Your task to perform on an android device: Go to eBay Image 0: 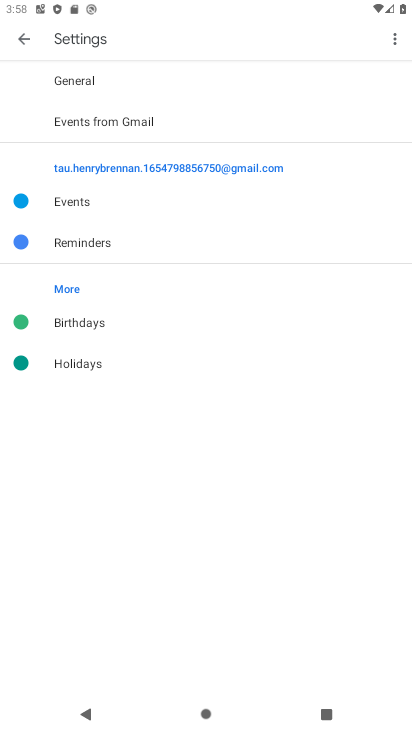
Step 0: click (229, 643)
Your task to perform on an android device: Go to eBay Image 1: 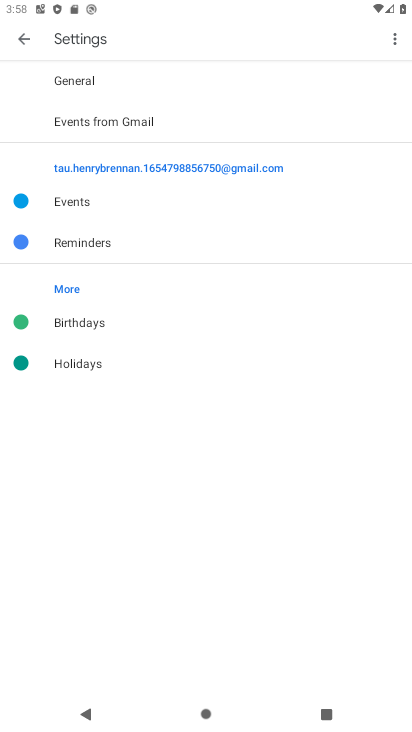
Step 1: press home button
Your task to perform on an android device: Go to eBay Image 2: 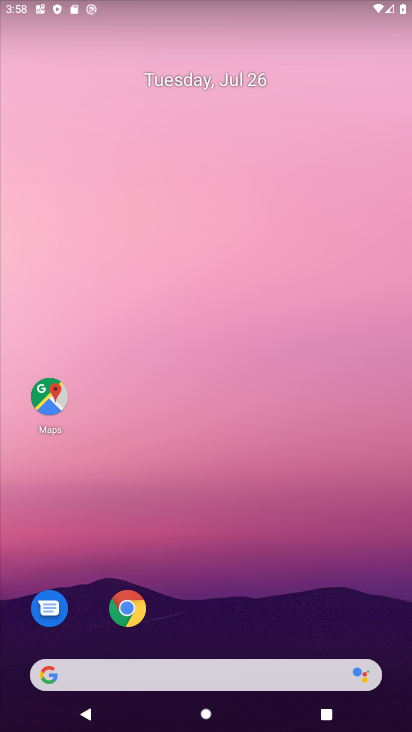
Step 2: drag from (233, 668) to (233, 4)
Your task to perform on an android device: Go to eBay Image 3: 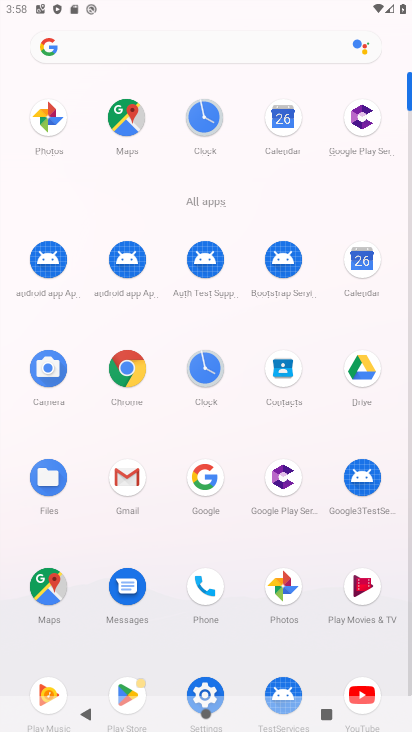
Step 3: click (111, 382)
Your task to perform on an android device: Go to eBay Image 4: 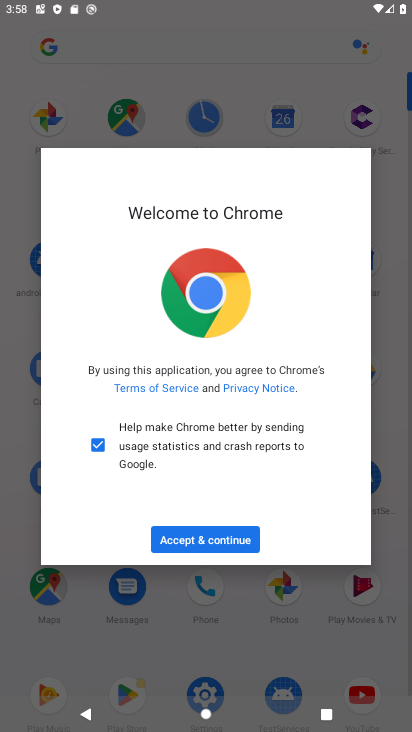
Step 4: click (207, 541)
Your task to perform on an android device: Go to eBay Image 5: 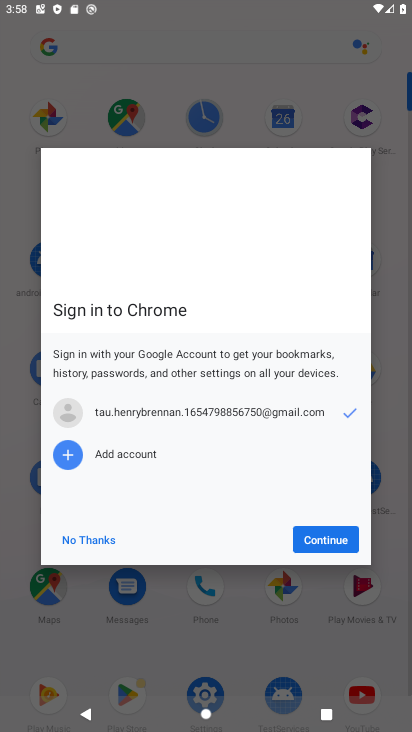
Step 5: click (295, 536)
Your task to perform on an android device: Go to eBay Image 6: 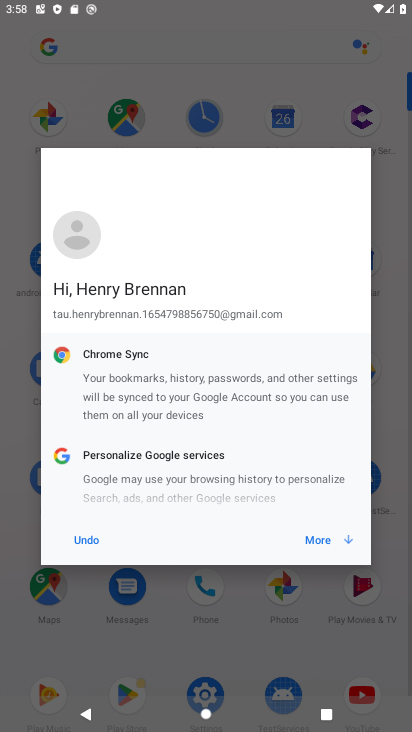
Step 6: click (329, 540)
Your task to perform on an android device: Go to eBay Image 7: 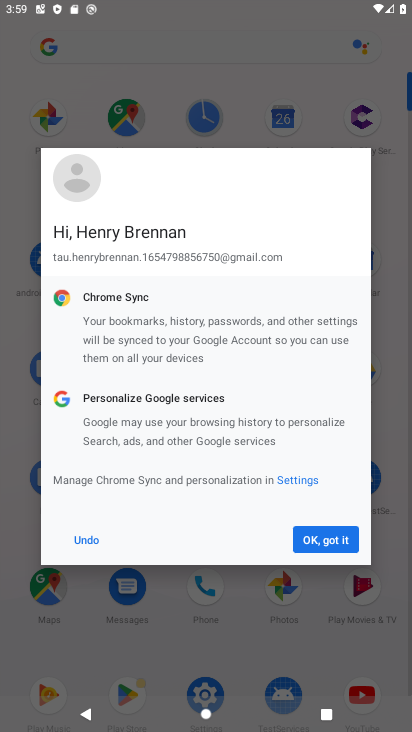
Step 7: click (329, 539)
Your task to perform on an android device: Go to eBay Image 8: 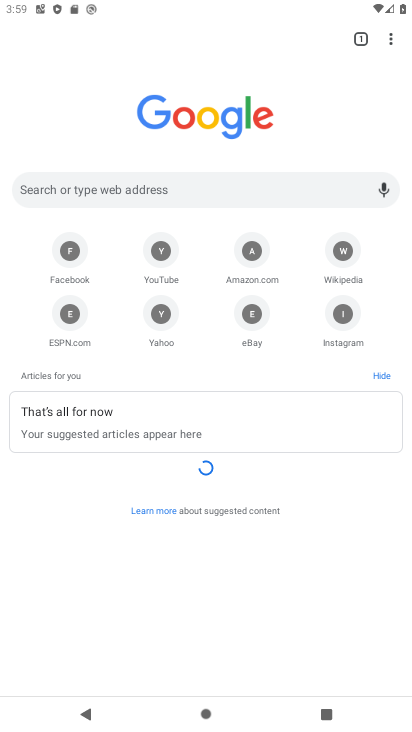
Step 8: click (257, 326)
Your task to perform on an android device: Go to eBay Image 9: 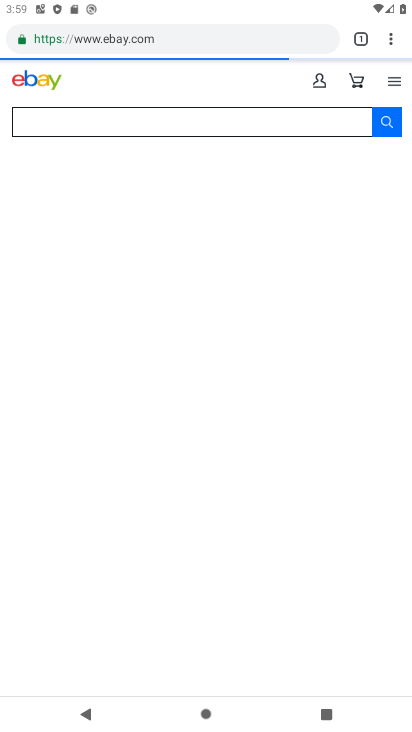
Step 9: task complete